Your task to perform on an android device: turn off sleep mode Image 0: 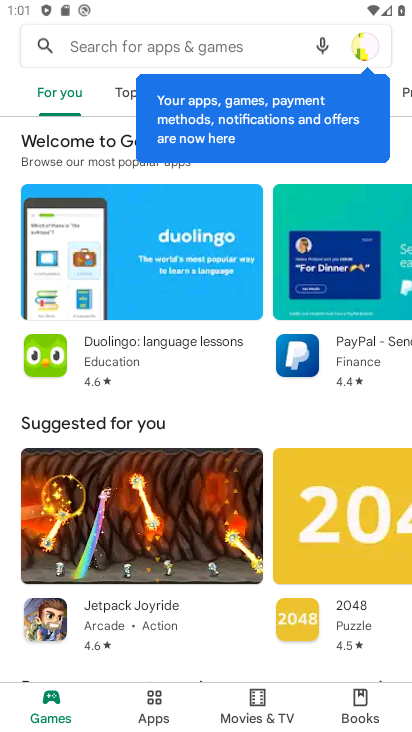
Step 0: press home button
Your task to perform on an android device: turn off sleep mode Image 1: 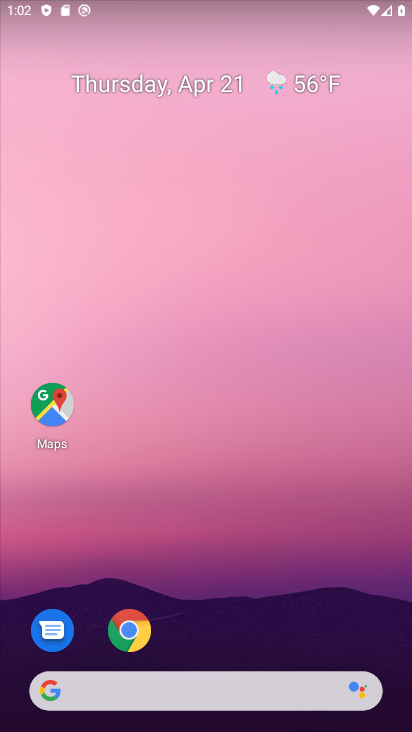
Step 1: drag from (202, 702) to (136, 134)
Your task to perform on an android device: turn off sleep mode Image 2: 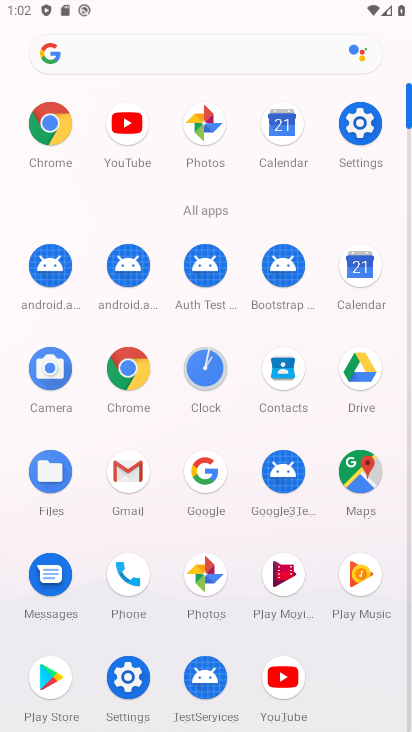
Step 2: click (366, 124)
Your task to perform on an android device: turn off sleep mode Image 3: 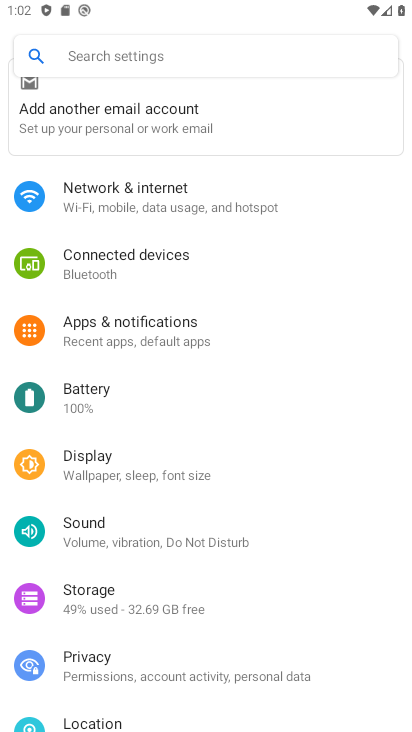
Step 3: click (98, 463)
Your task to perform on an android device: turn off sleep mode Image 4: 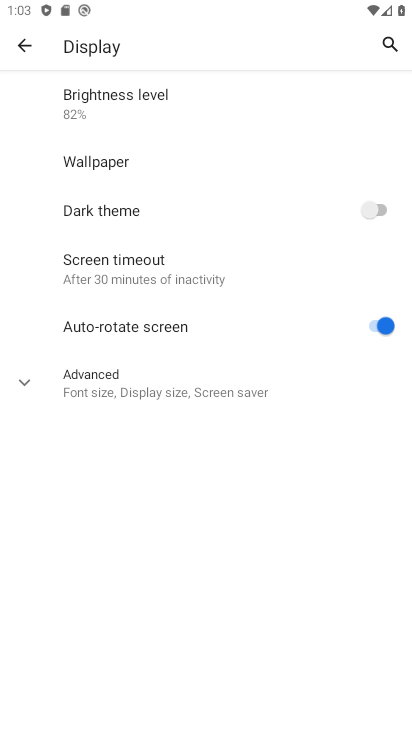
Step 4: click (169, 385)
Your task to perform on an android device: turn off sleep mode Image 5: 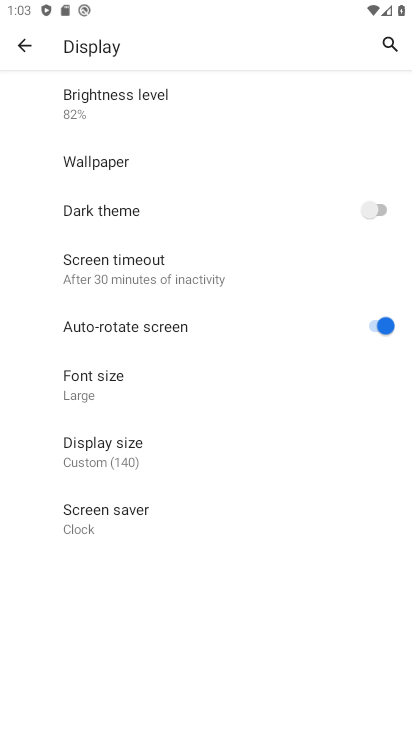
Step 5: task complete